Your task to perform on an android device: change timer sound Image 0: 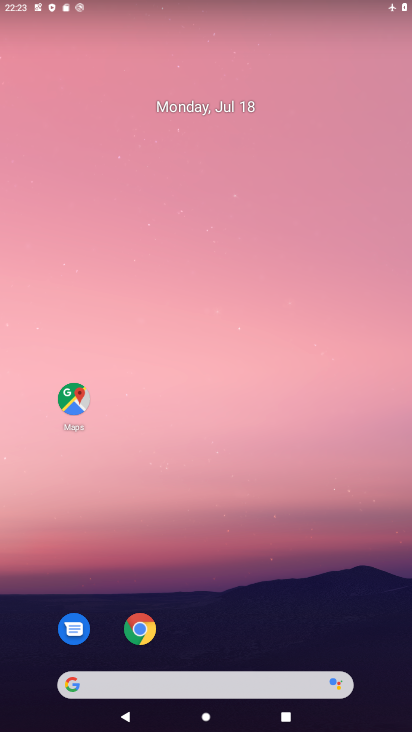
Step 0: drag from (285, 468) to (293, 93)
Your task to perform on an android device: change timer sound Image 1: 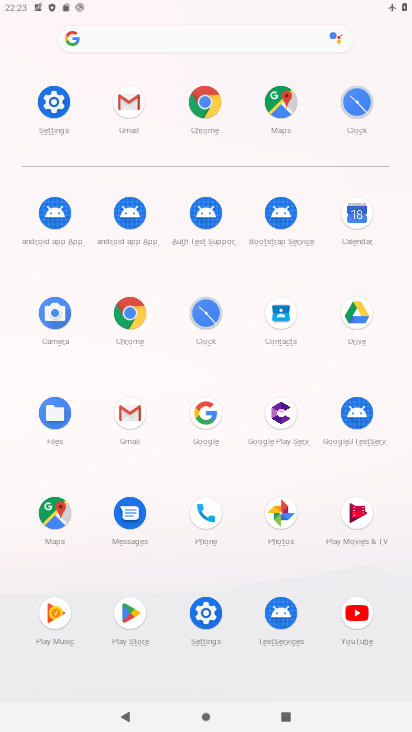
Step 1: click (211, 315)
Your task to perform on an android device: change timer sound Image 2: 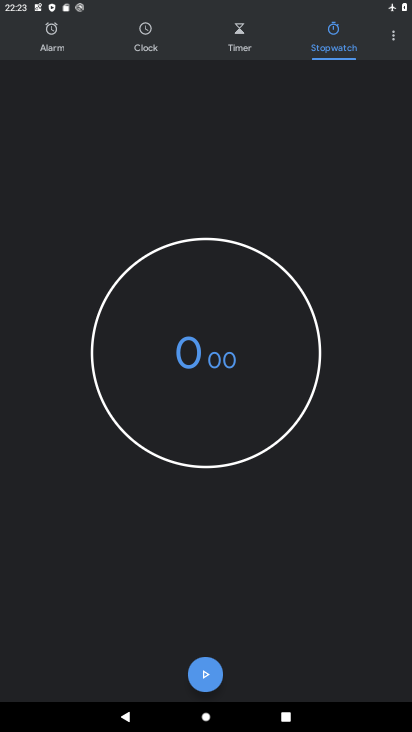
Step 2: click (387, 36)
Your task to perform on an android device: change timer sound Image 3: 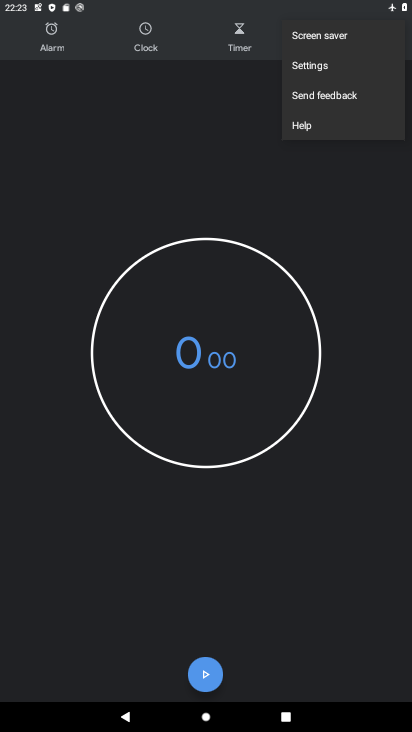
Step 3: click (298, 72)
Your task to perform on an android device: change timer sound Image 4: 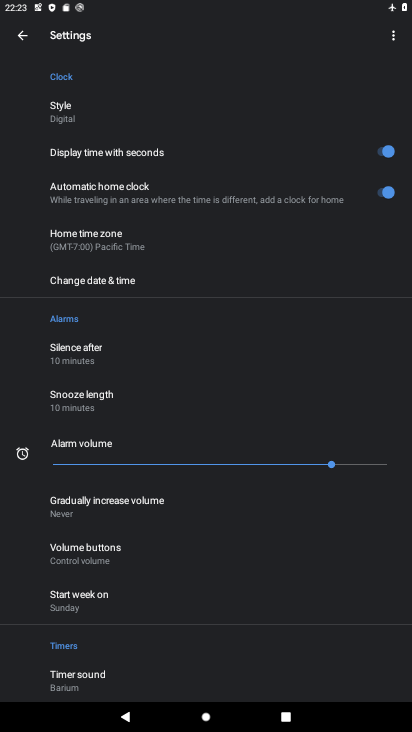
Step 4: click (83, 674)
Your task to perform on an android device: change timer sound Image 5: 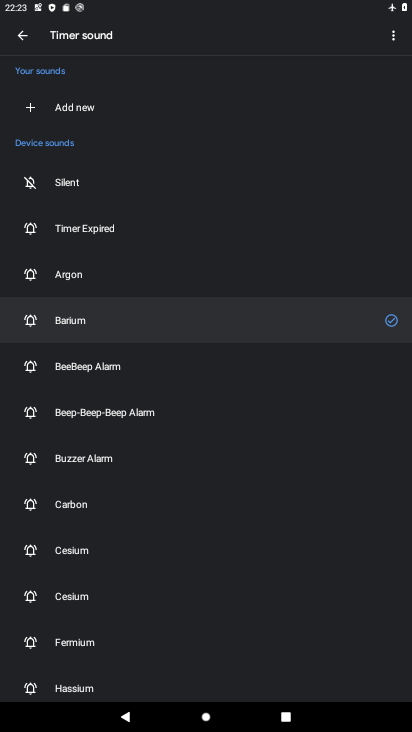
Step 5: click (94, 277)
Your task to perform on an android device: change timer sound Image 6: 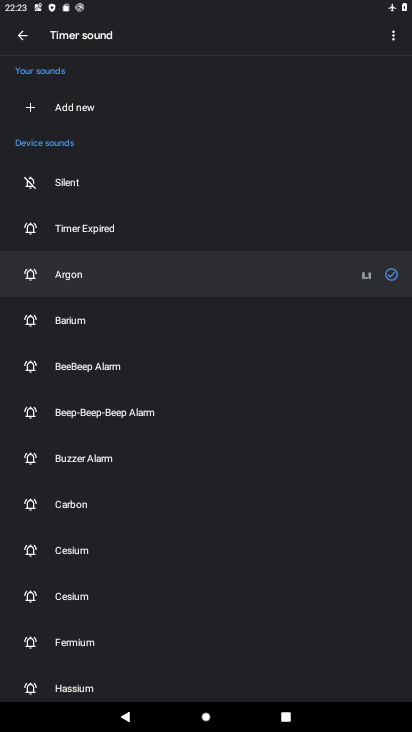
Step 6: task complete